Your task to perform on an android device: View the shopping cart on target.com. Add logitech g502 to the cart on target.com, then select checkout. Image 0: 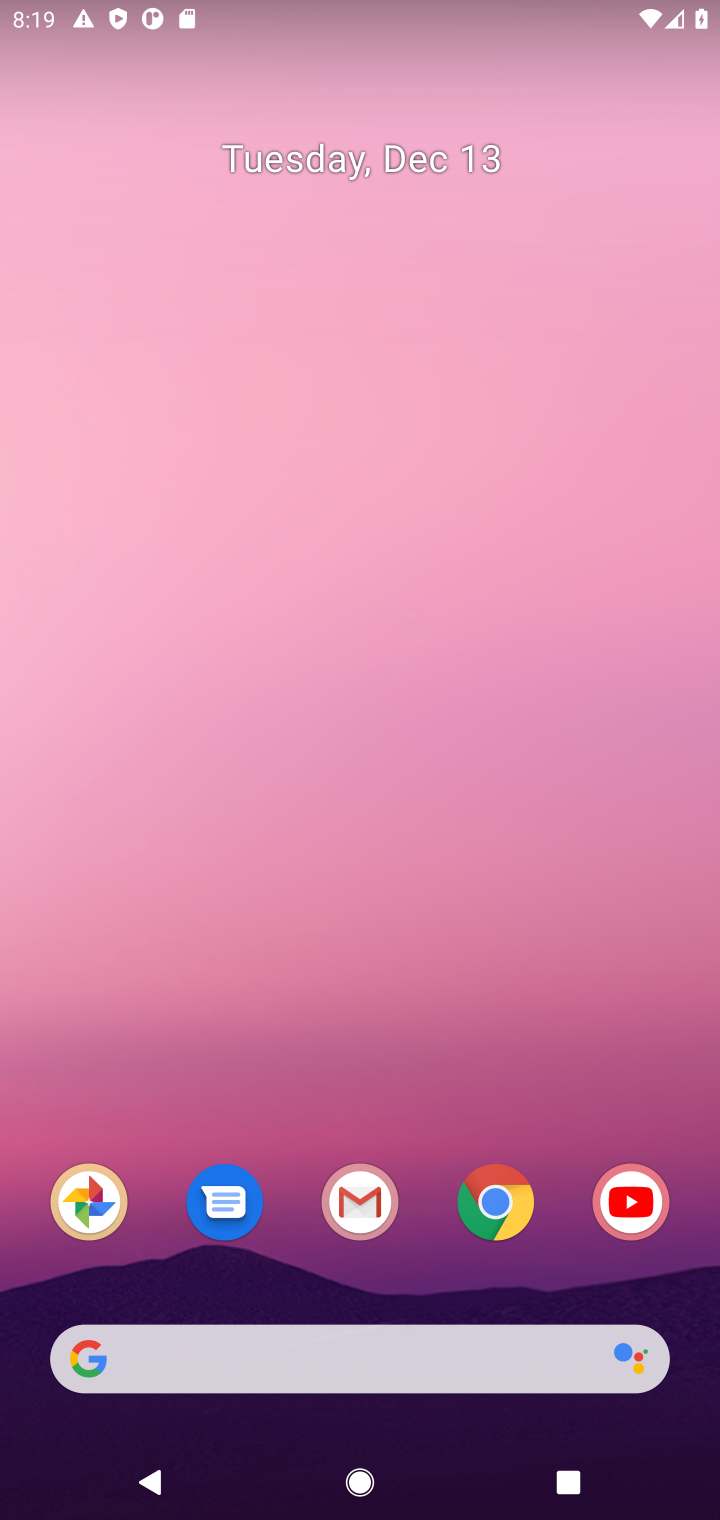
Step 0: click (504, 1213)
Your task to perform on an android device: View the shopping cart on target.com. Add logitech g502 to the cart on target.com, then select checkout. Image 1: 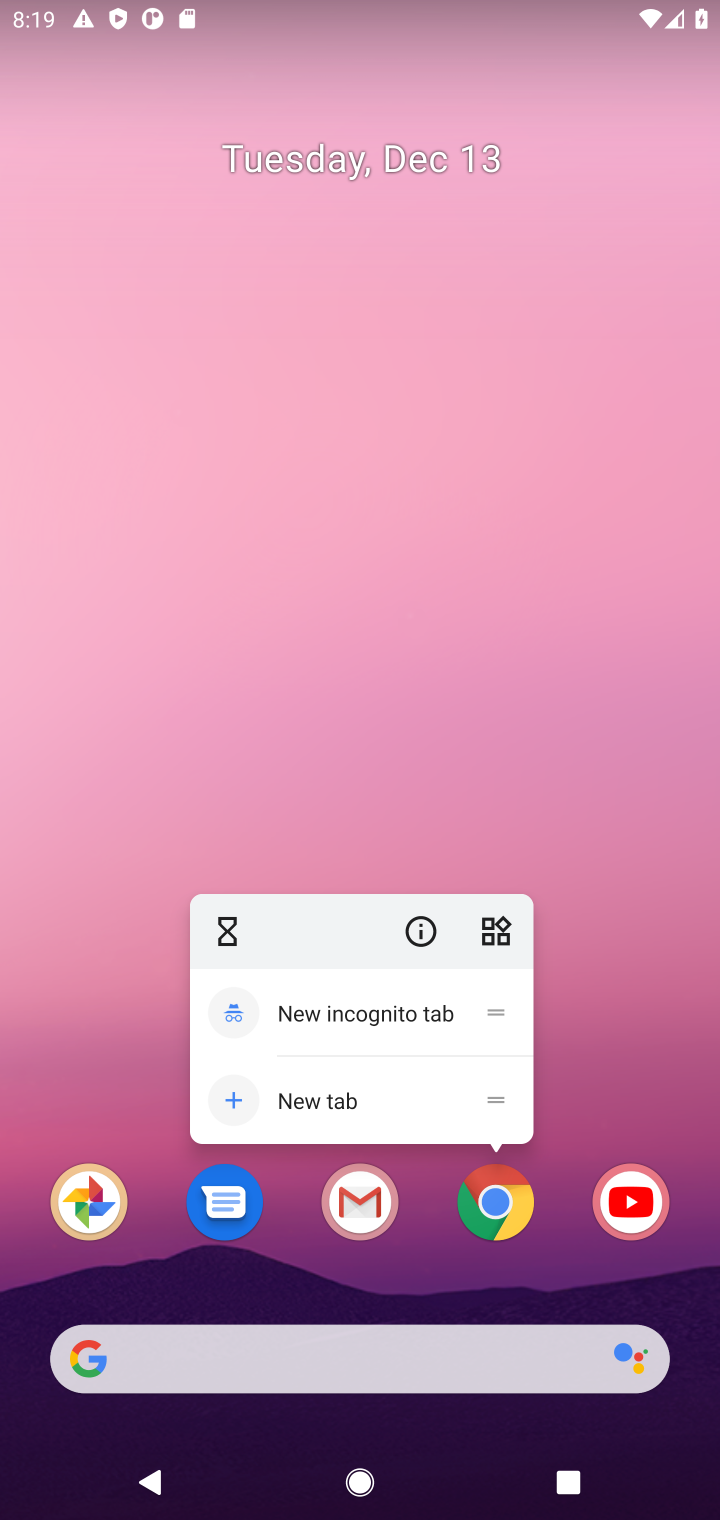
Step 1: click (504, 1213)
Your task to perform on an android device: View the shopping cart on target.com. Add logitech g502 to the cart on target.com, then select checkout. Image 2: 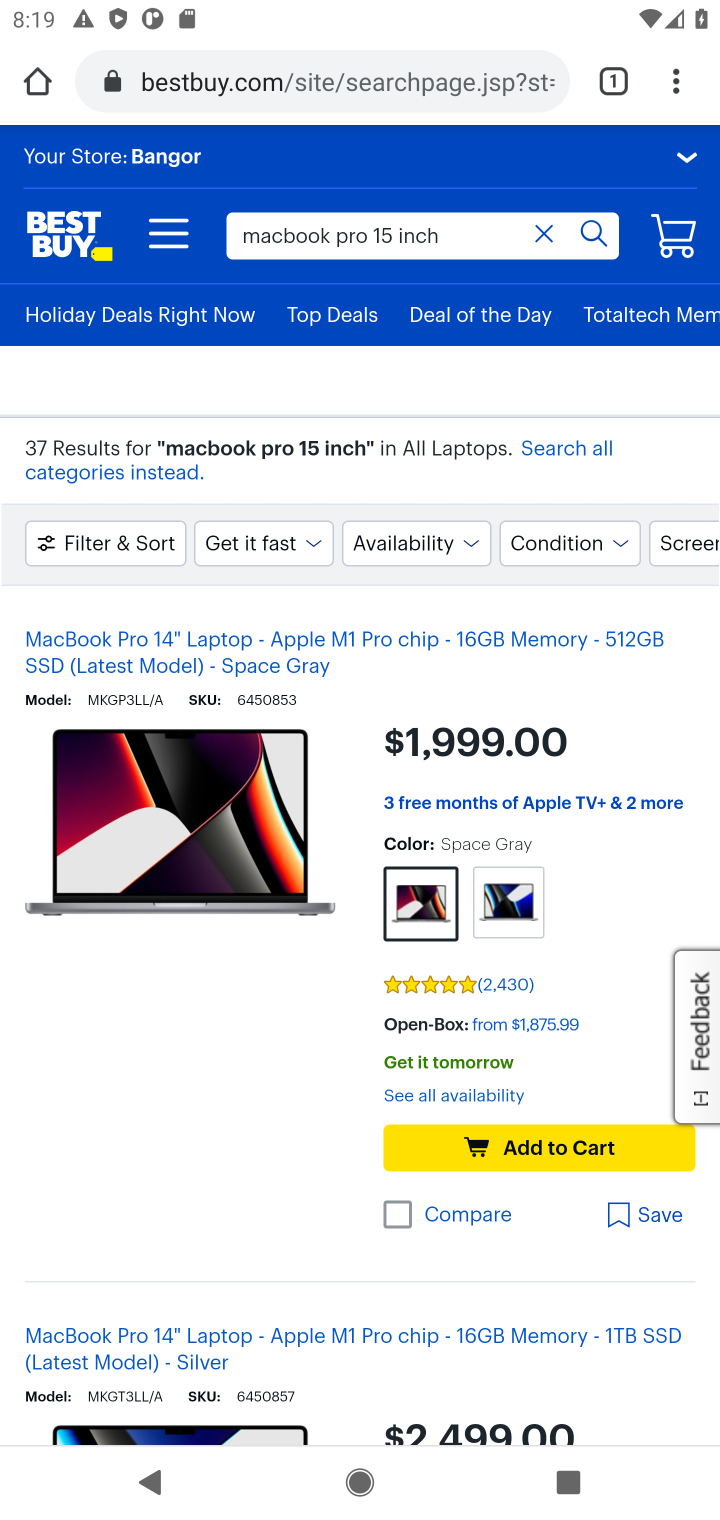
Step 2: click (288, 86)
Your task to perform on an android device: View the shopping cart on target.com. Add logitech g502 to the cart on target.com, then select checkout. Image 3: 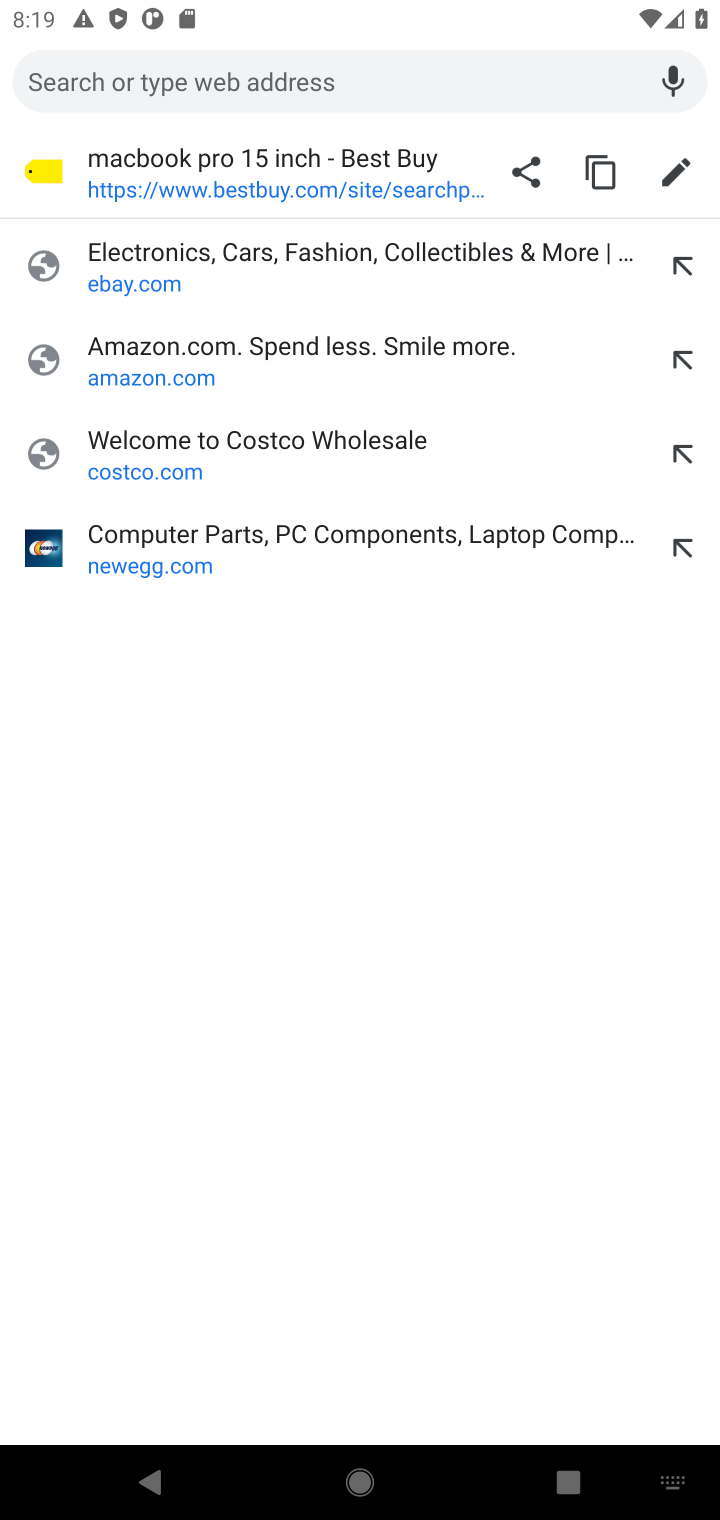
Step 3: type "target.com"
Your task to perform on an android device: View the shopping cart on target.com. Add logitech g502 to the cart on target.com, then select checkout. Image 4: 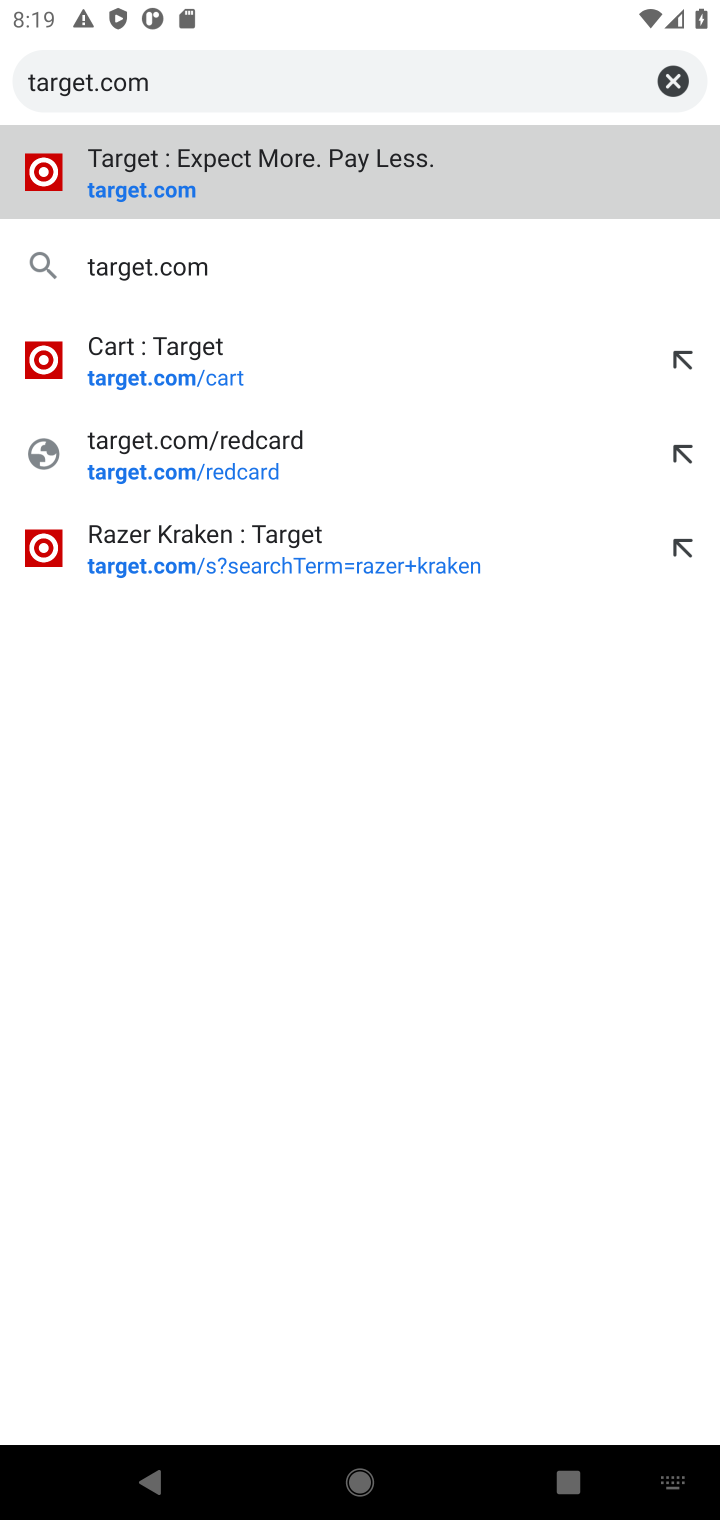
Step 4: click (126, 186)
Your task to perform on an android device: View the shopping cart on target.com. Add logitech g502 to the cart on target.com, then select checkout. Image 5: 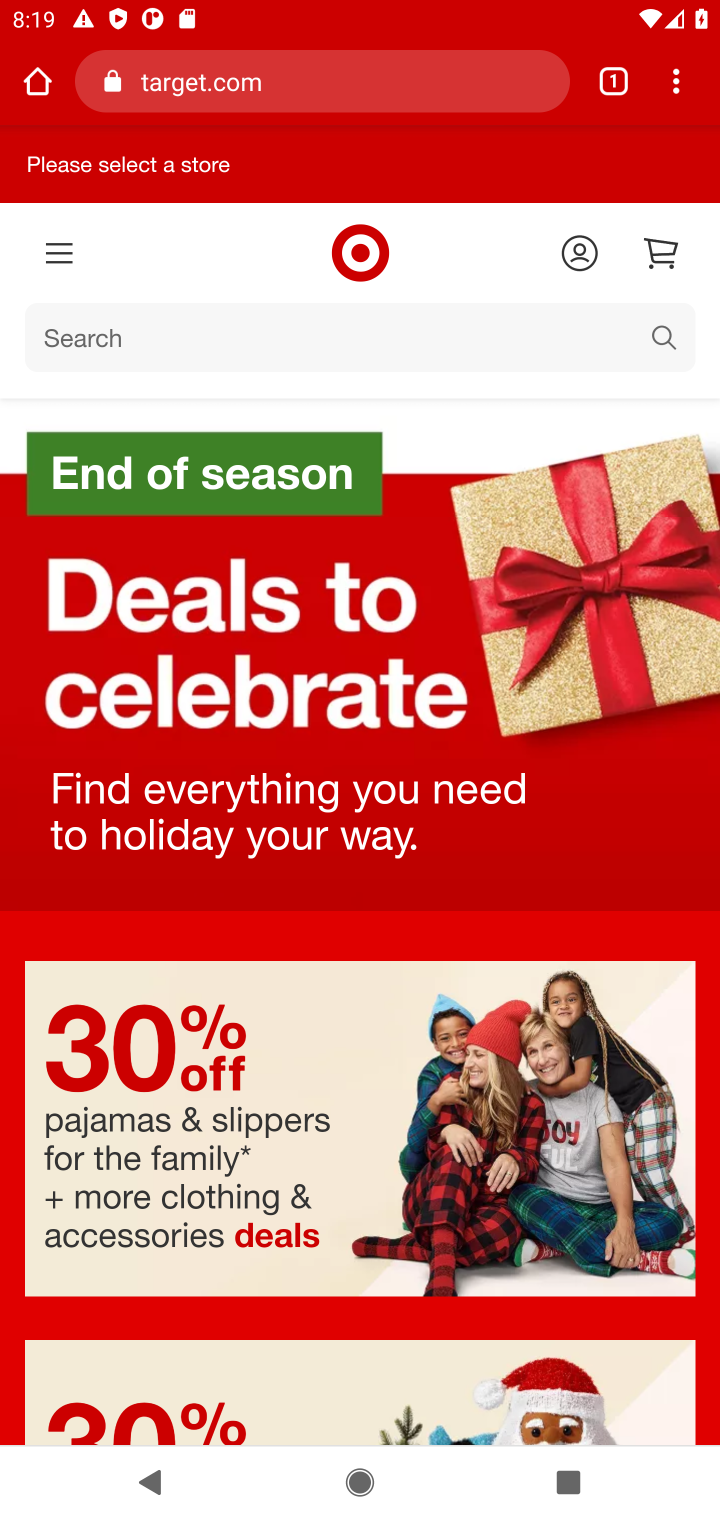
Step 5: click (662, 250)
Your task to perform on an android device: View the shopping cart on target.com. Add logitech g502 to the cart on target.com, then select checkout. Image 6: 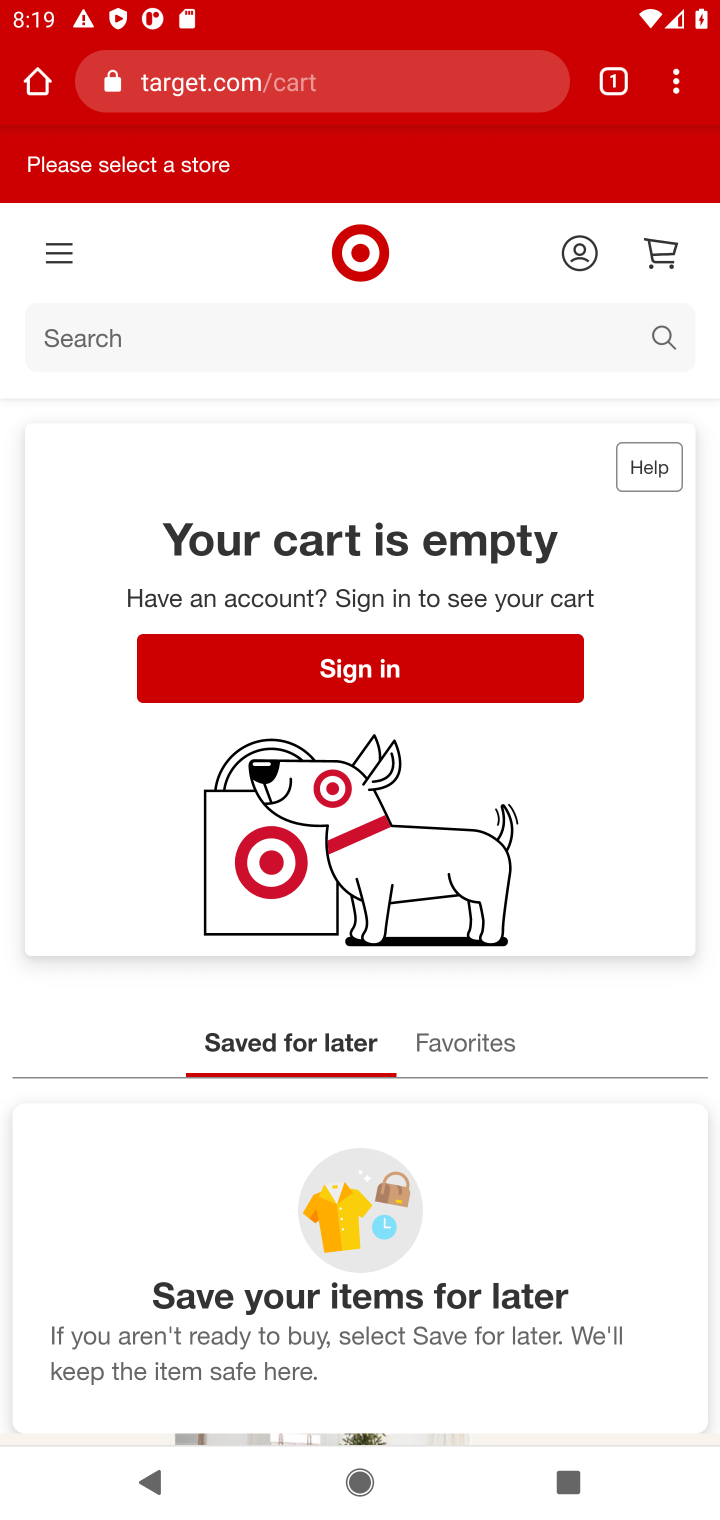
Step 6: click (528, 345)
Your task to perform on an android device: View the shopping cart on target.com. Add logitech g502 to the cart on target.com, then select checkout. Image 7: 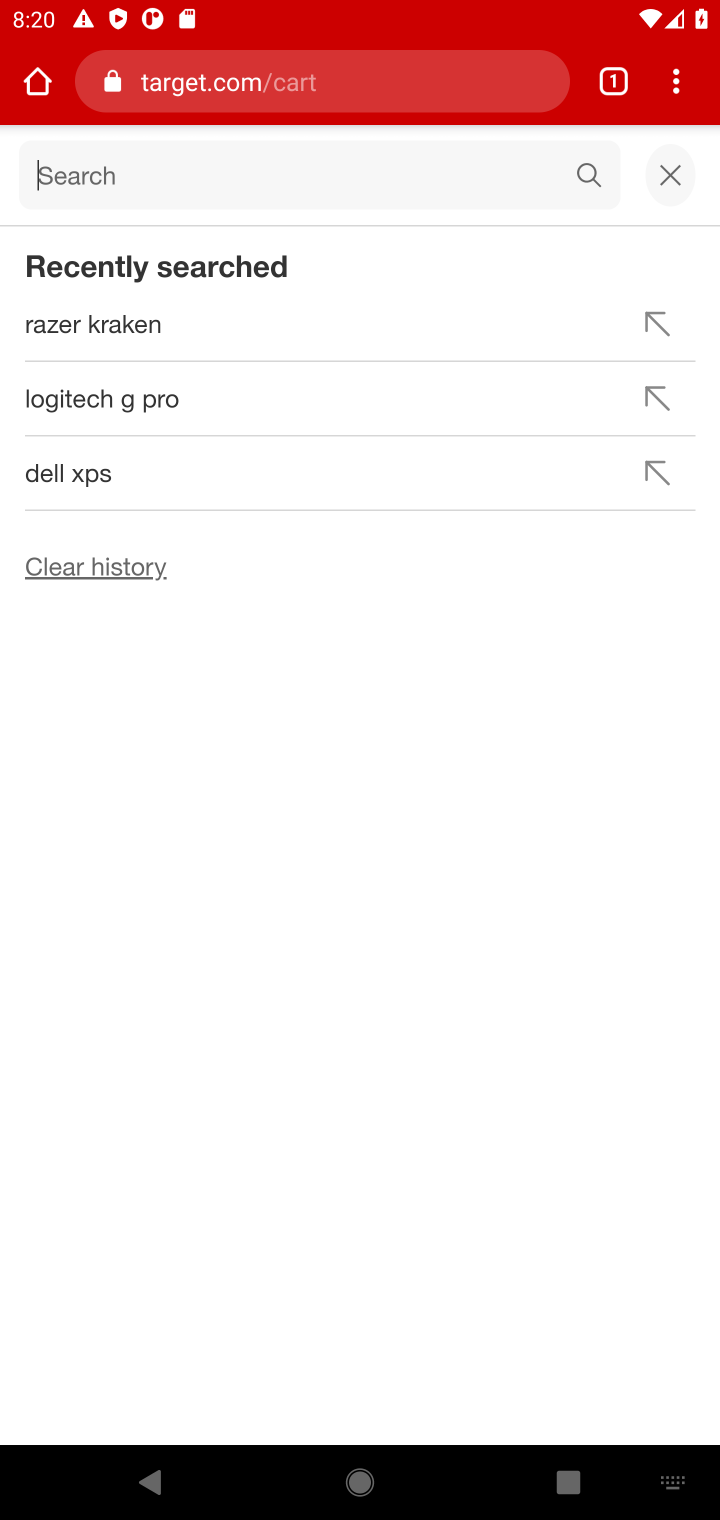
Step 7: type "logitech g502"
Your task to perform on an android device: View the shopping cart on target.com. Add logitech g502 to the cart on target.com, then select checkout. Image 8: 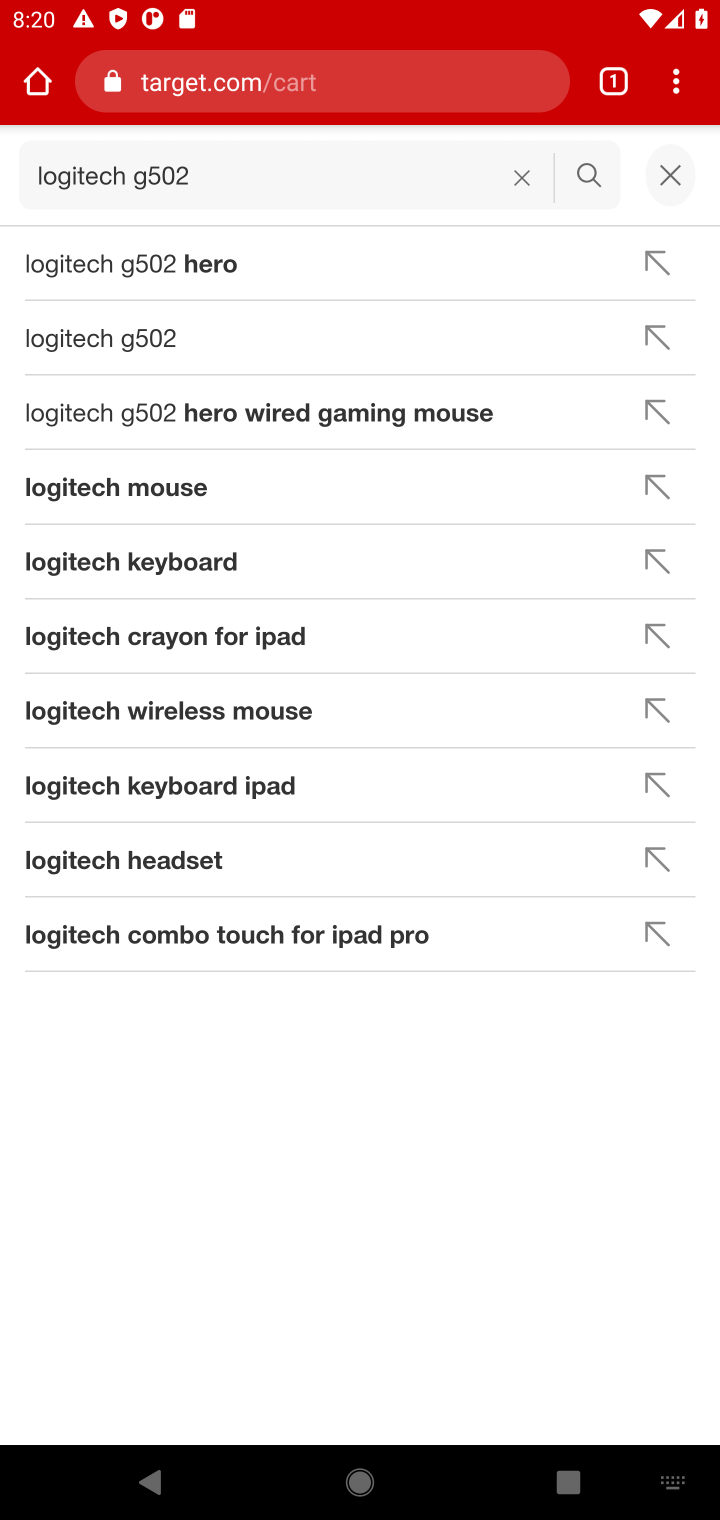
Step 8: click (585, 176)
Your task to perform on an android device: View the shopping cart on target.com. Add logitech g502 to the cart on target.com, then select checkout. Image 9: 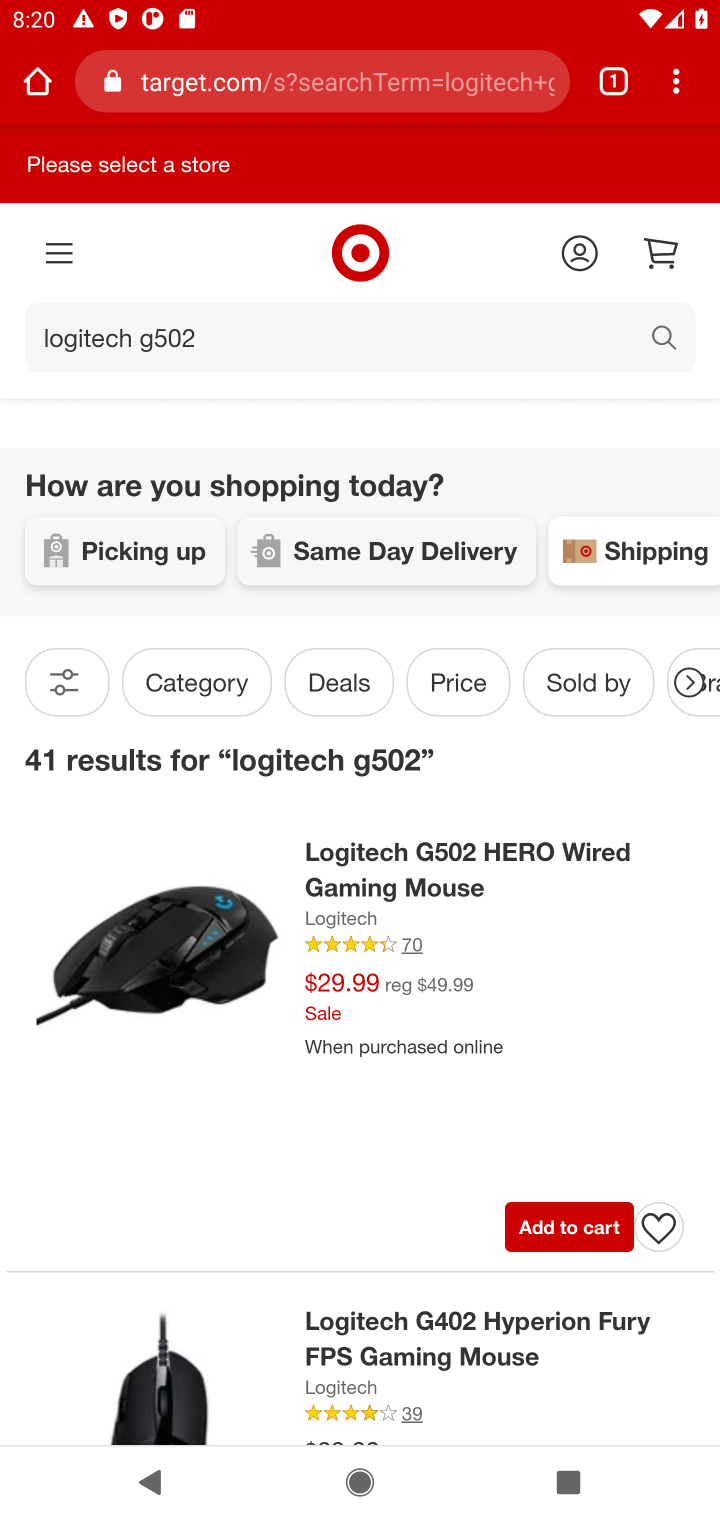
Step 9: click (417, 869)
Your task to perform on an android device: View the shopping cart on target.com. Add logitech g502 to the cart on target.com, then select checkout. Image 10: 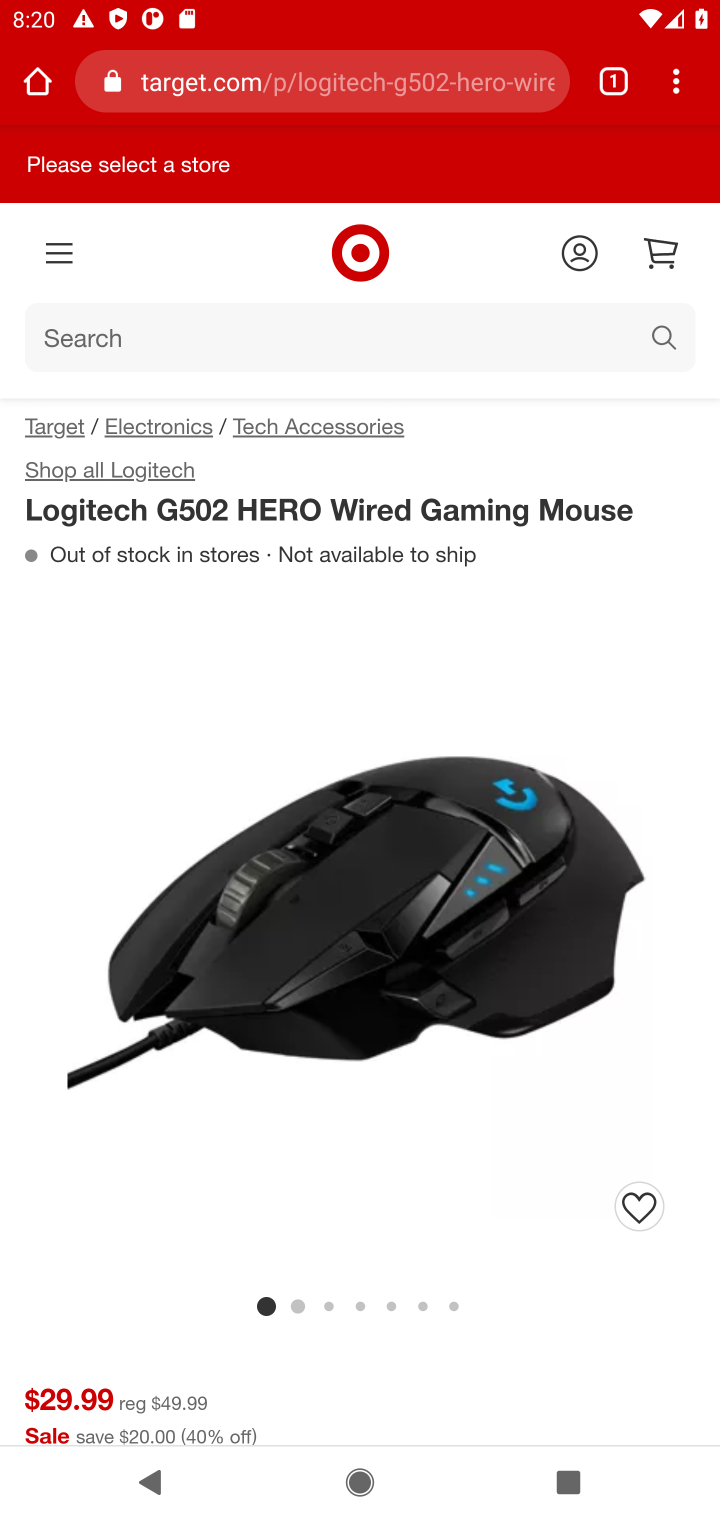
Step 10: drag from (497, 1140) to (561, 591)
Your task to perform on an android device: View the shopping cart on target.com. Add logitech g502 to the cart on target.com, then select checkout. Image 11: 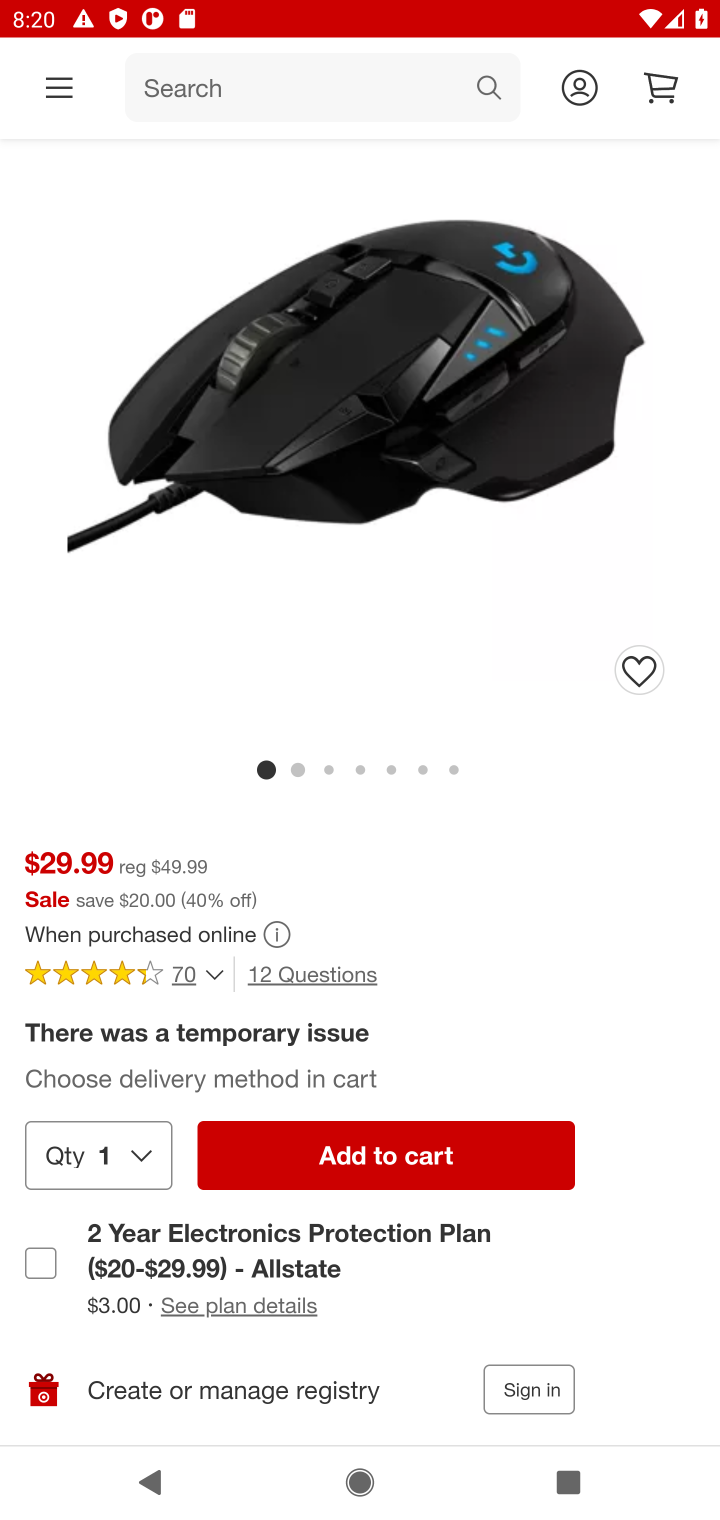
Step 11: click (503, 1170)
Your task to perform on an android device: View the shopping cart on target.com. Add logitech g502 to the cart on target.com, then select checkout. Image 12: 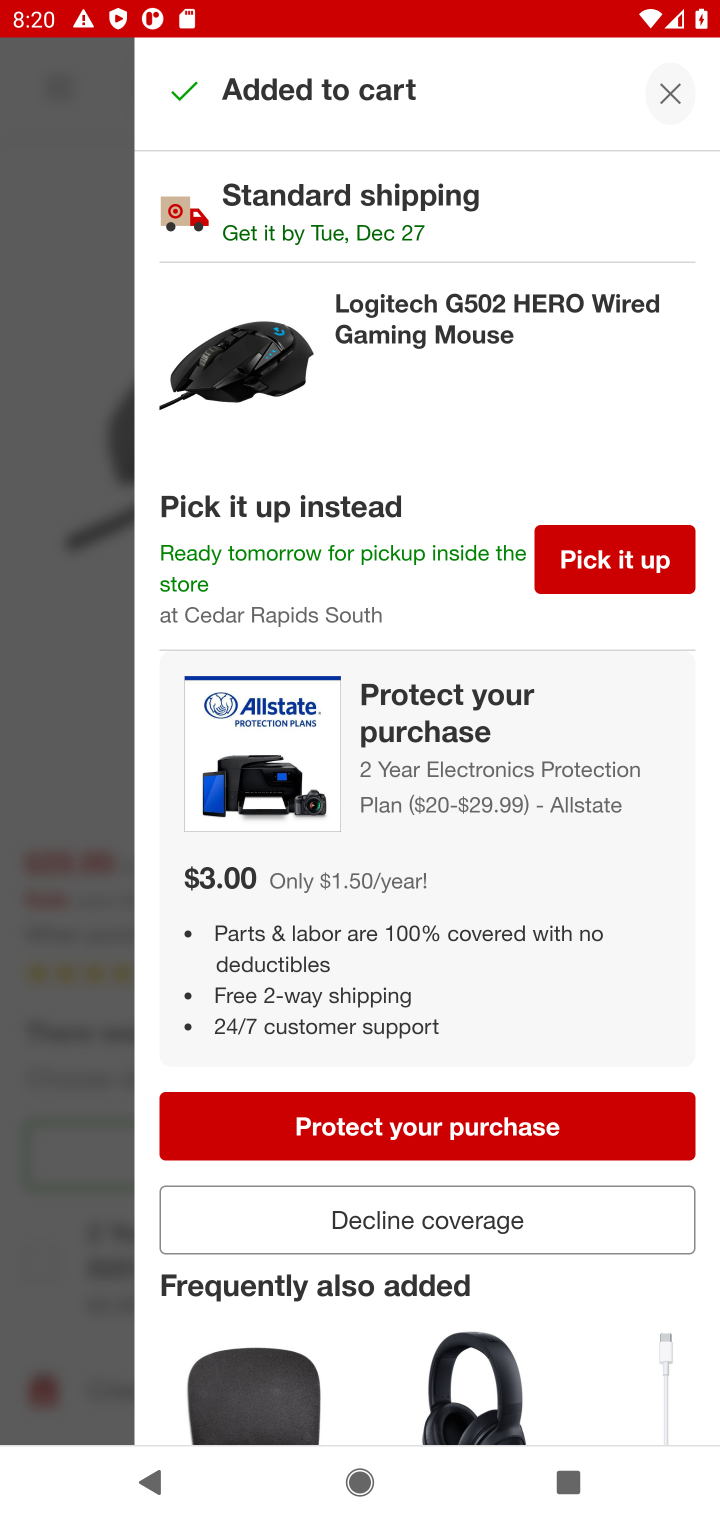
Step 12: click (667, 89)
Your task to perform on an android device: View the shopping cart on target.com. Add logitech g502 to the cart on target.com, then select checkout. Image 13: 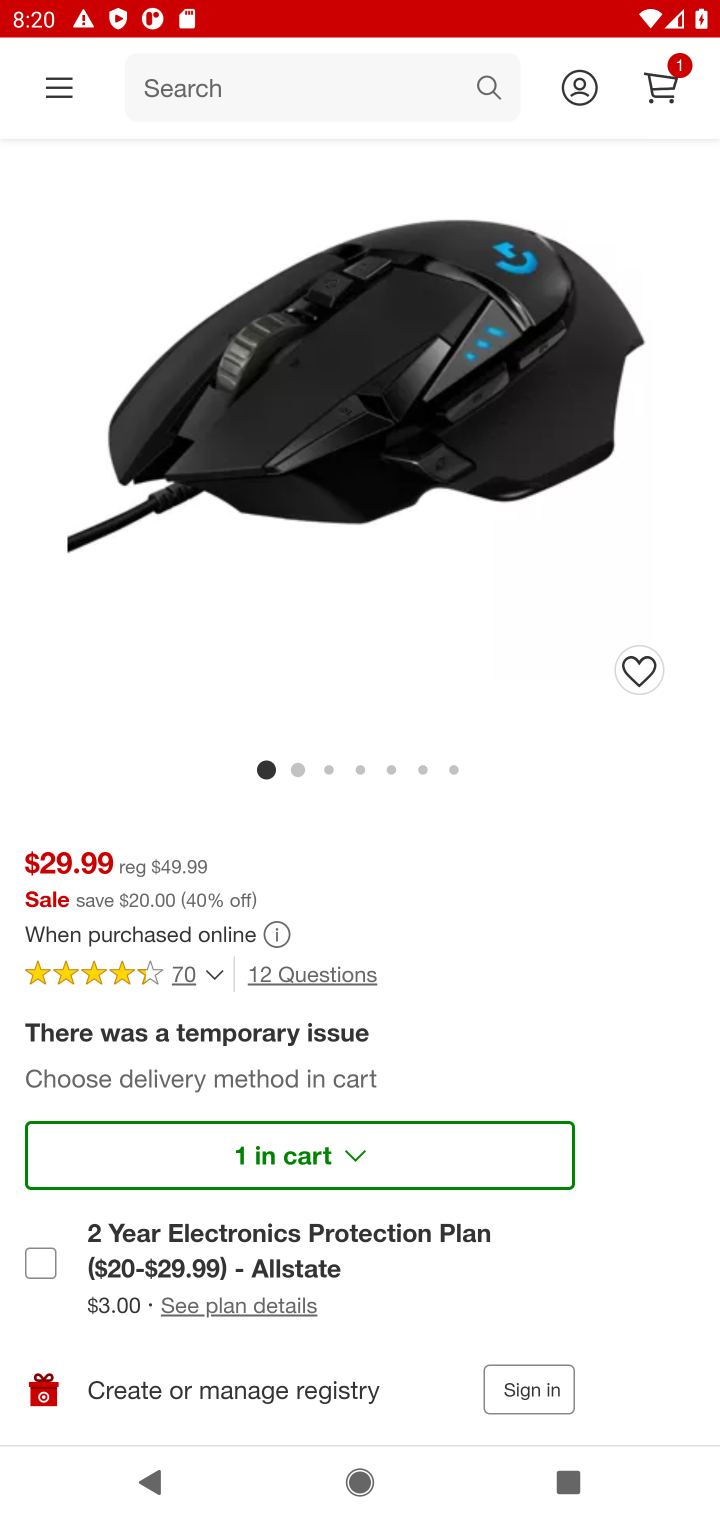
Step 13: click (667, 88)
Your task to perform on an android device: View the shopping cart on target.com. Add logitech g502 to the cart on target.com, then select checkout. Image 14: 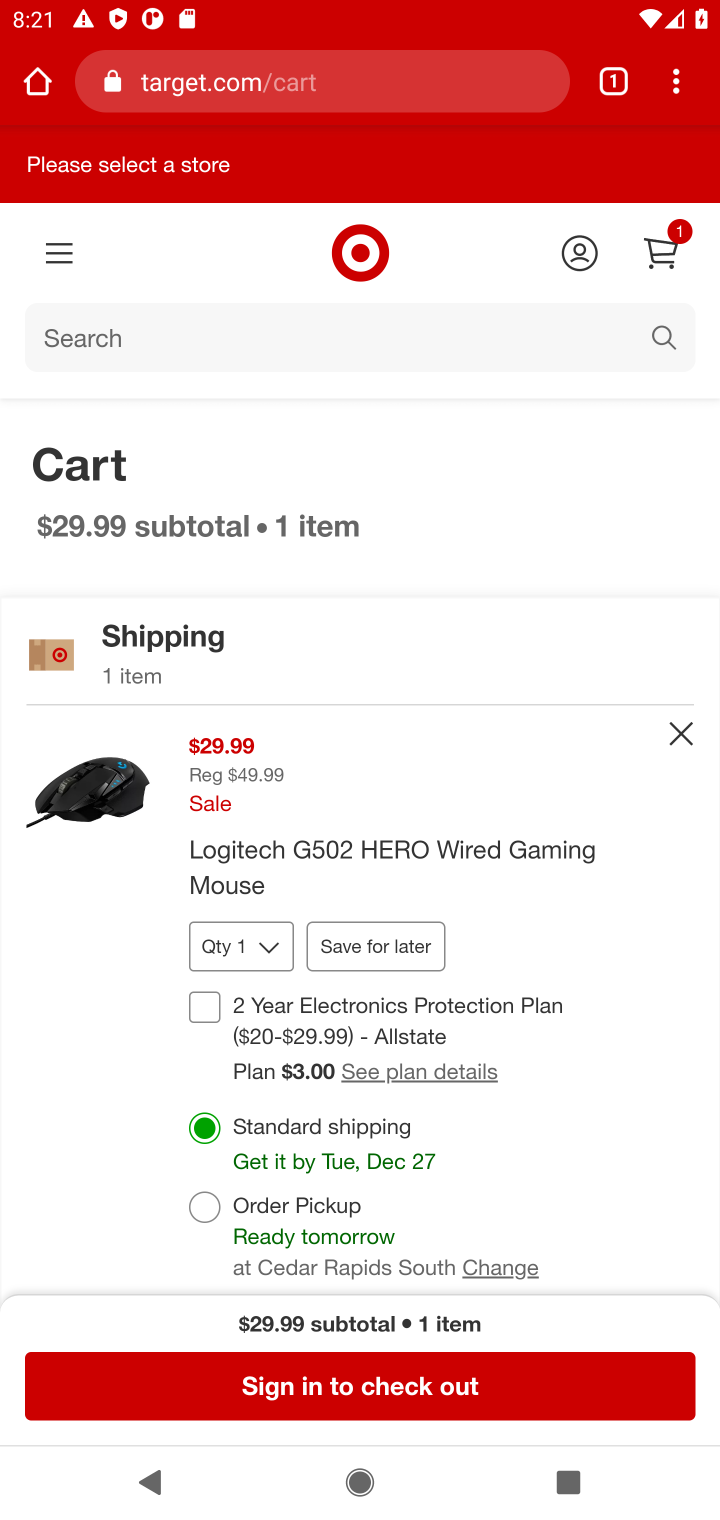
Step 14: click (528, 1375)
Your task to perform on an android device: View the shopping cart on target.com. Add logitech g502 to the cart on target.com, then select checkout. Image 15: 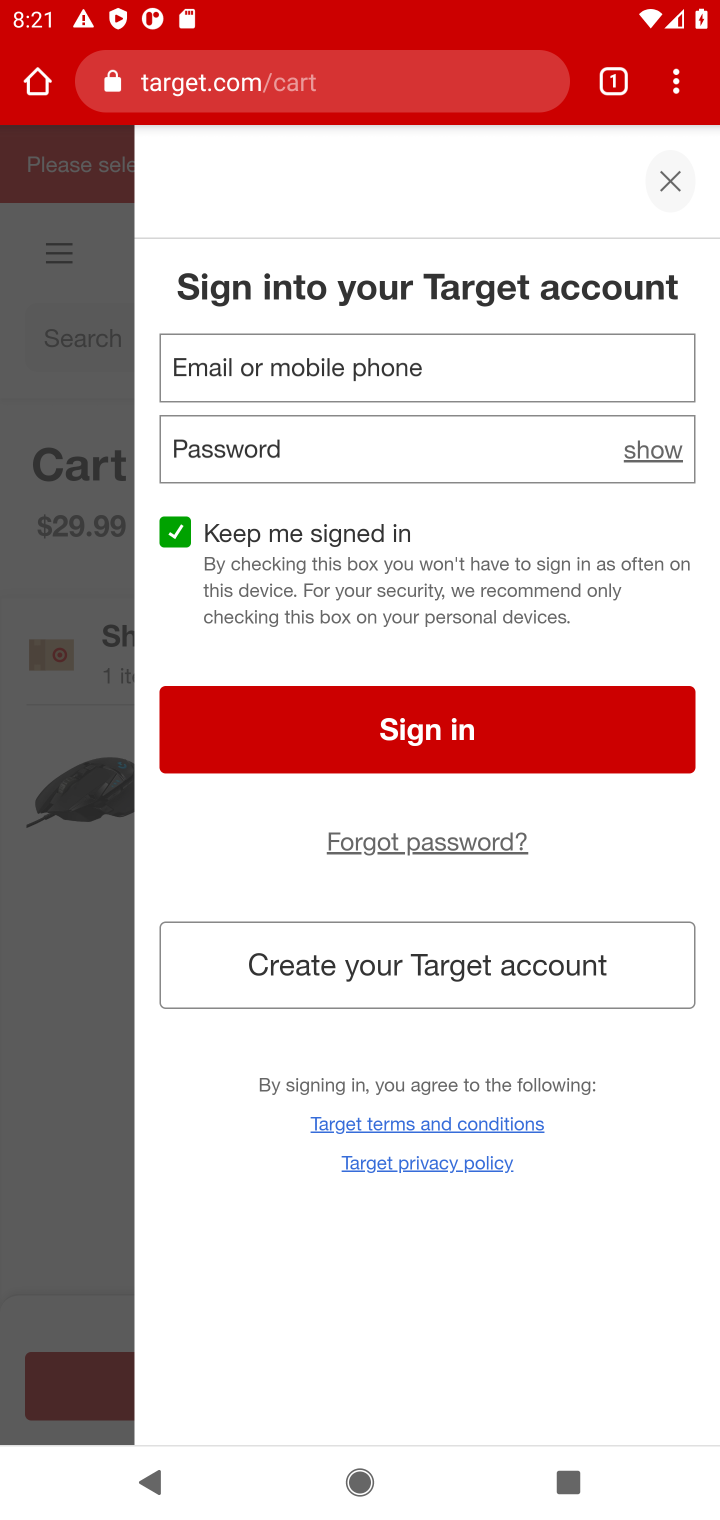
Step 15: task complete